Your task to perform on an android device: open app "Skype" (install if not already installed) and go to login screen Image 0: 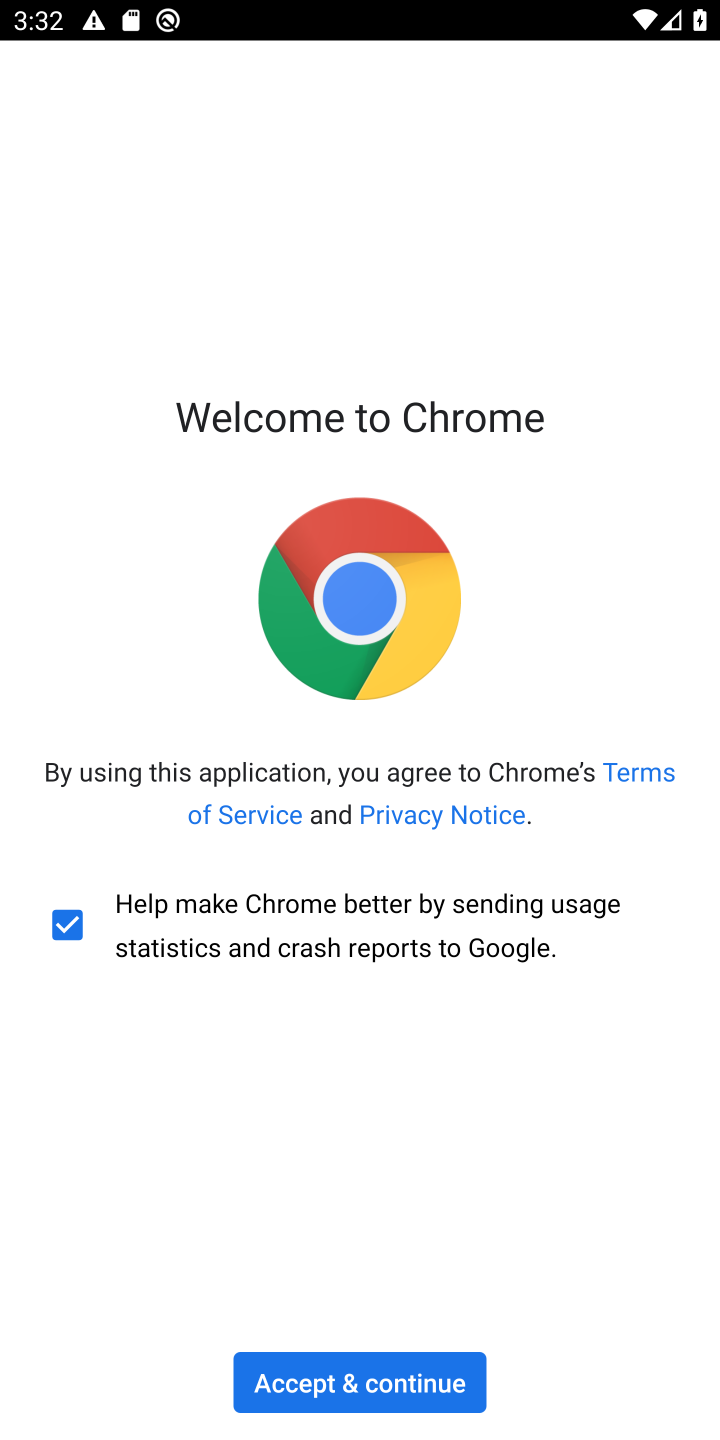
Step 0: press home button
Your task to perform on an android device: open app "Skype" (install if not already installed) and go to login screen Image 1: 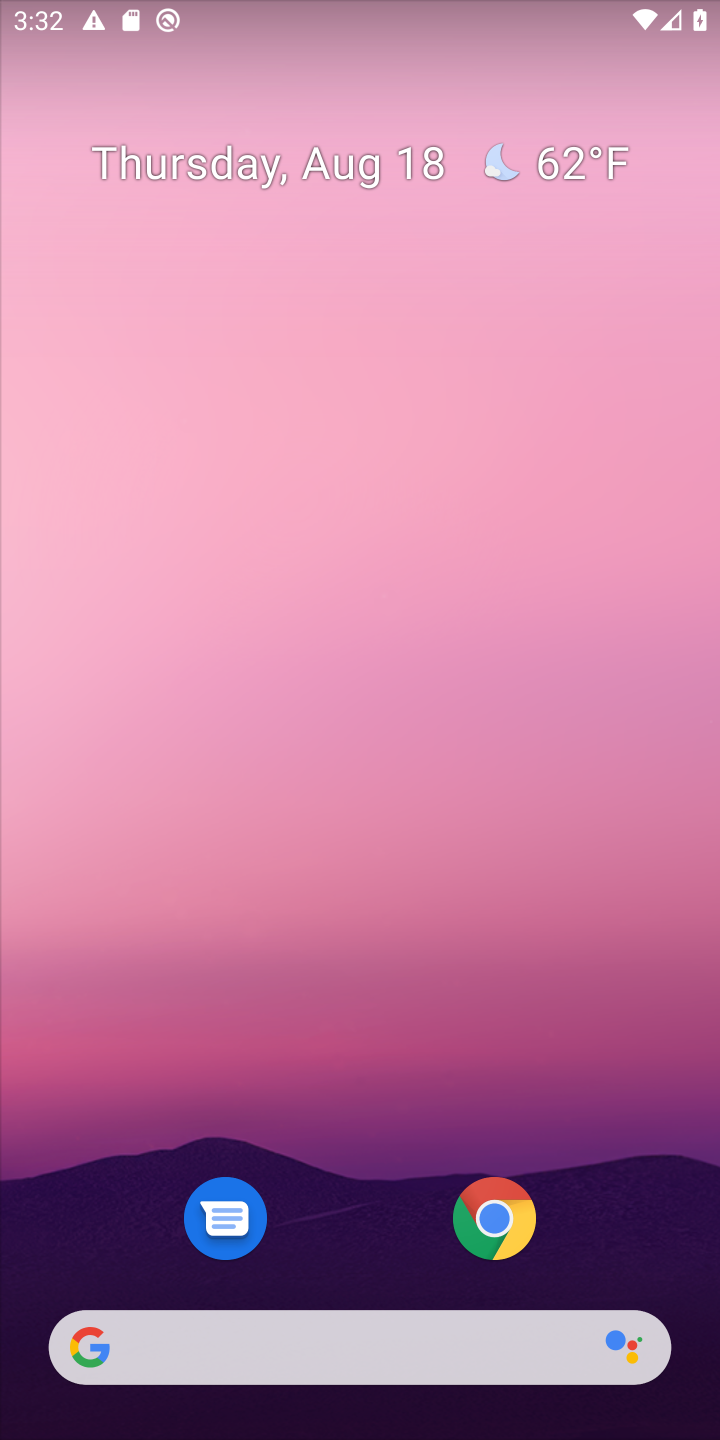
Step 1: drag from (341, 1062) to (341, 456)
Your task to perform on an android device: open app "Skype" (install if not already installed) and go to login screen Image 2: 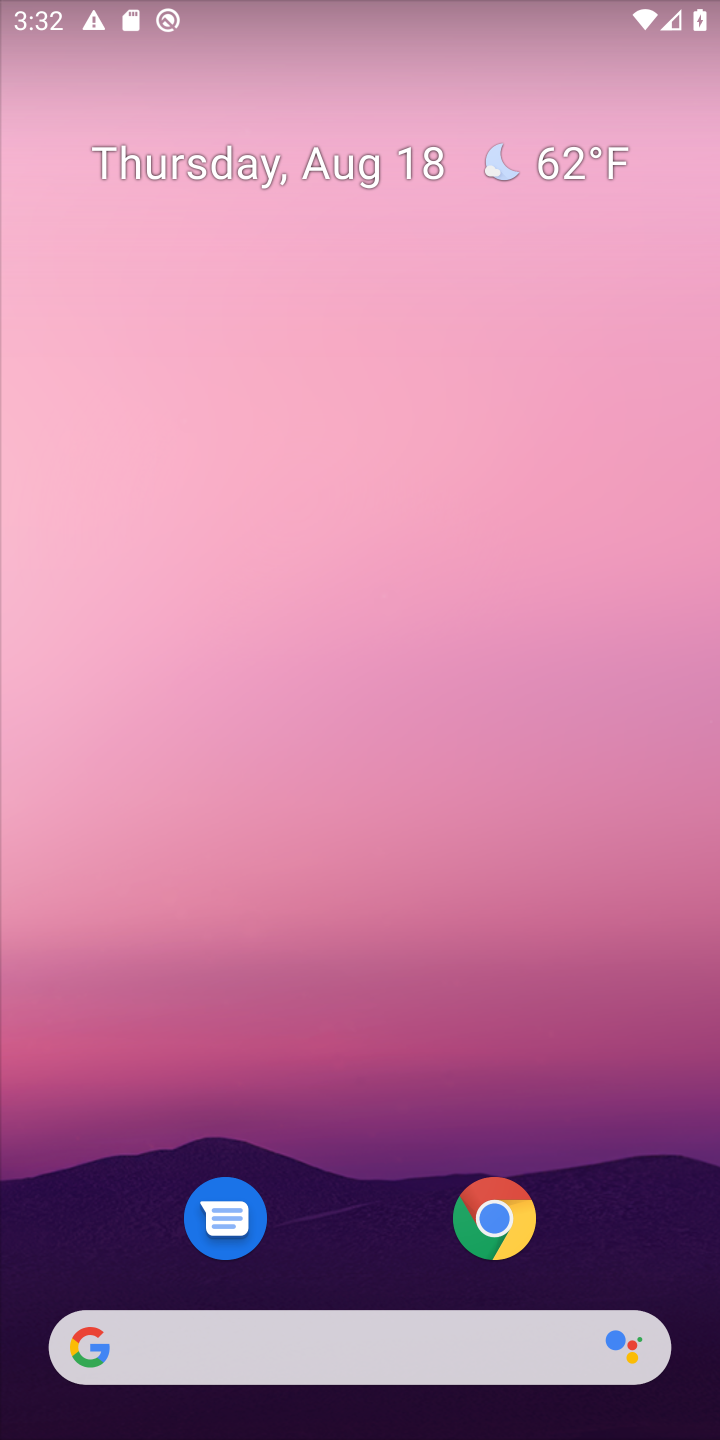
Step 2: drag from (363, 1114) to (368, 311)
Your task to perform on an android device: open app "Skype" (install if not already installed) and go to login screen Image 3: 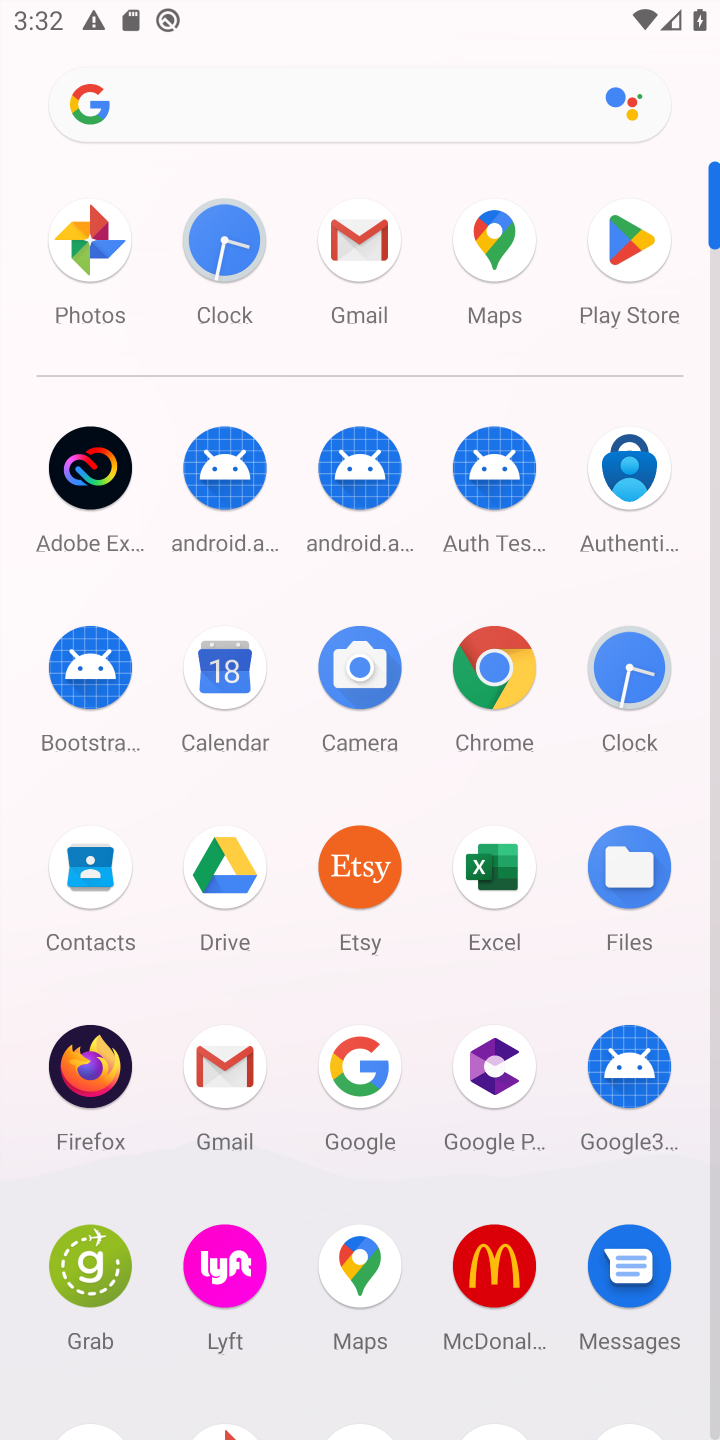
Step 3: click (614, 265)
Your task to perform on an android device: open app "Skype" (install if not already installed) and go to login screen Image 4: 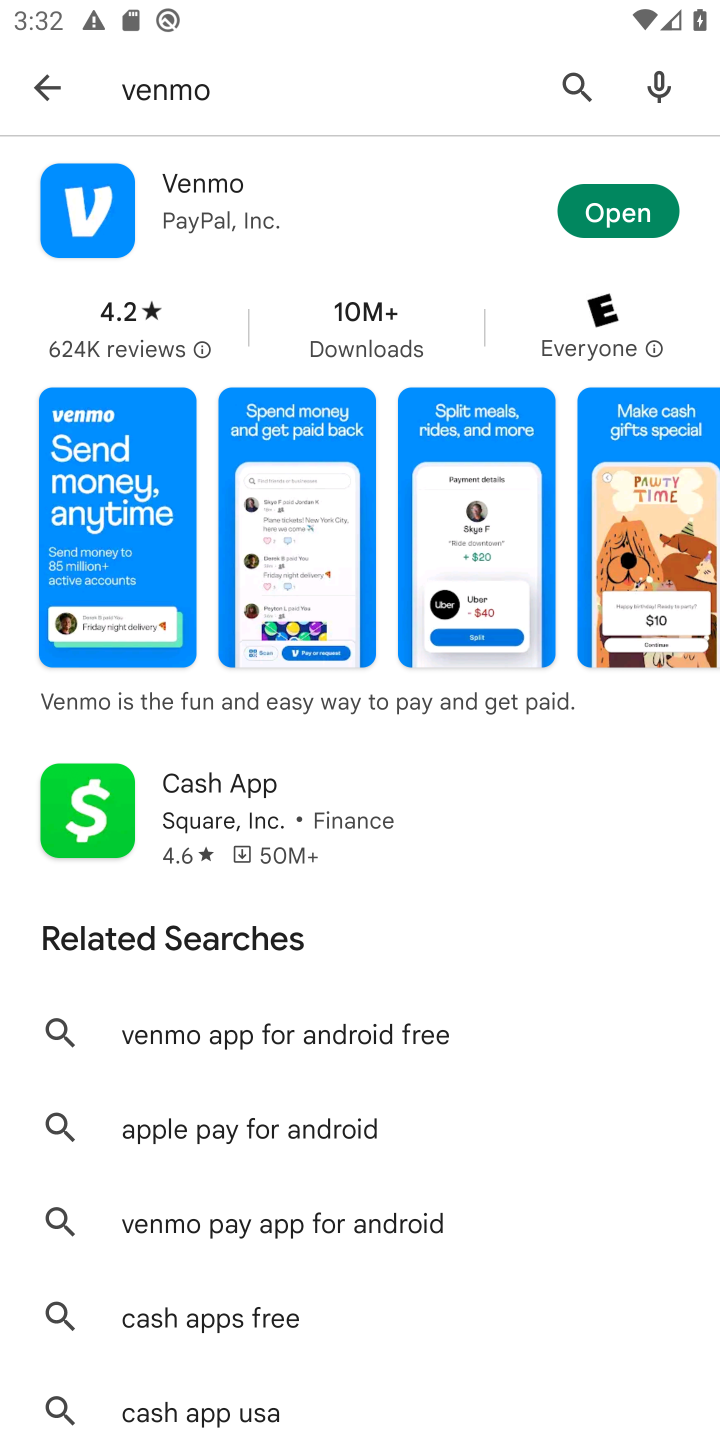
Step 4: click (557, 84)
Your task to perform on an android device: open app "Skype" (install if not already installed) and go to login screen Image 5: 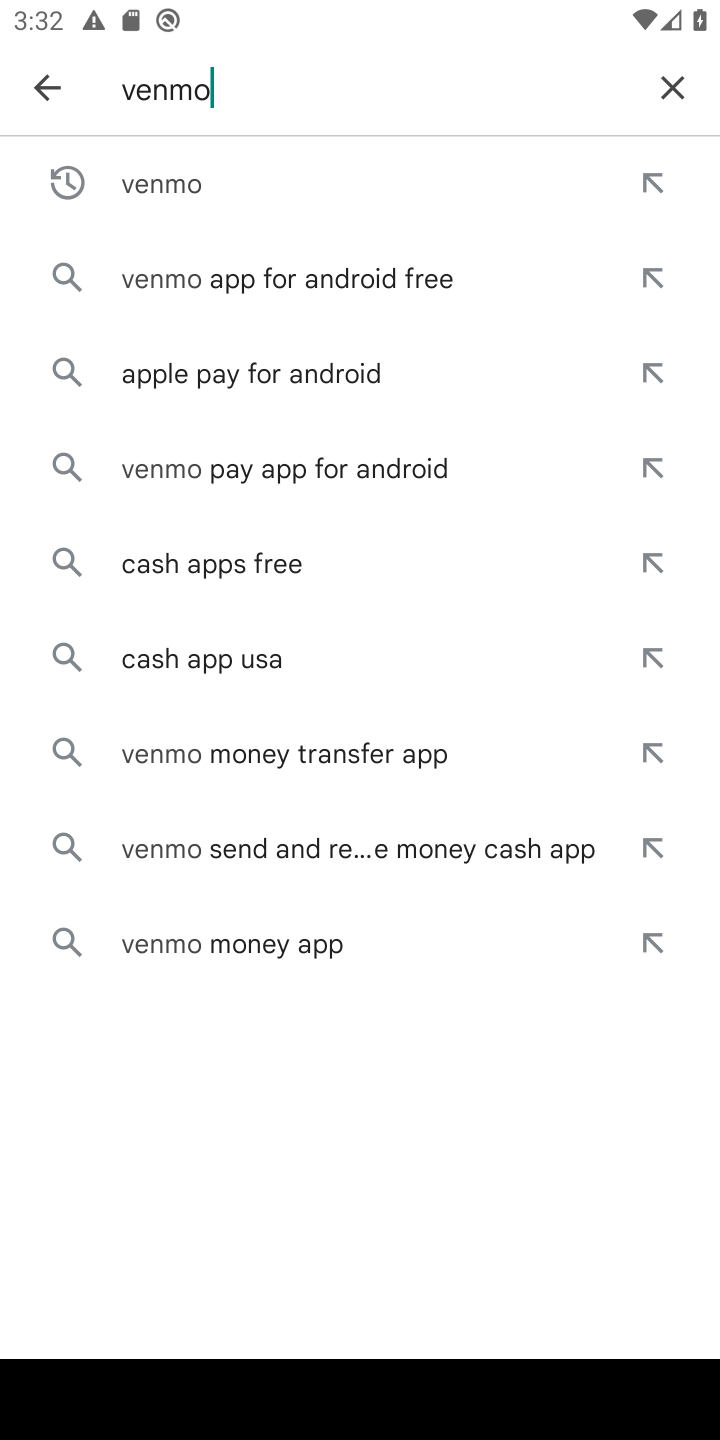
Step 5: click (666, 84)
Your task to perform on an android device: open app "Skype" (install if not already installed) and go to login screen Image 6: 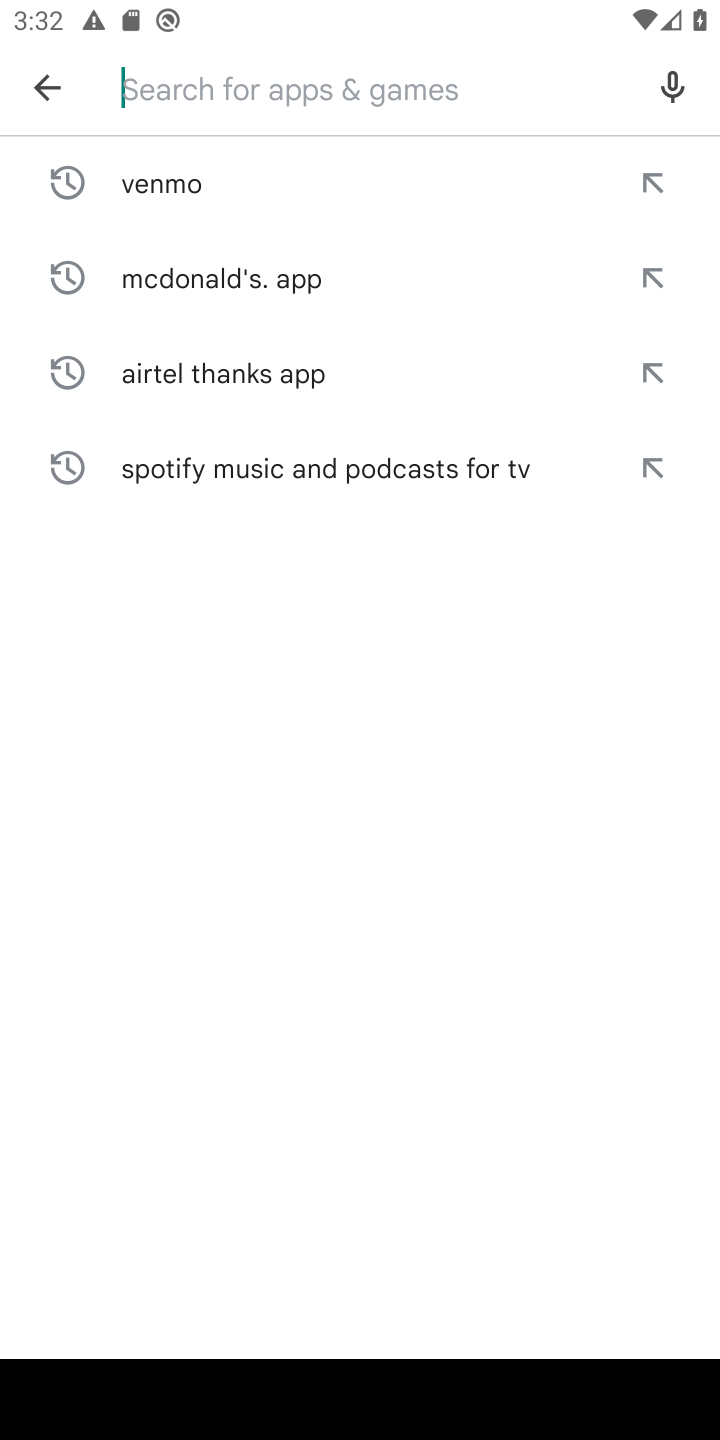
Step 6: type "Skype"
Your task to perform on an android device: open app "Skype" (install if not already installed) and go to login screen Image 7: 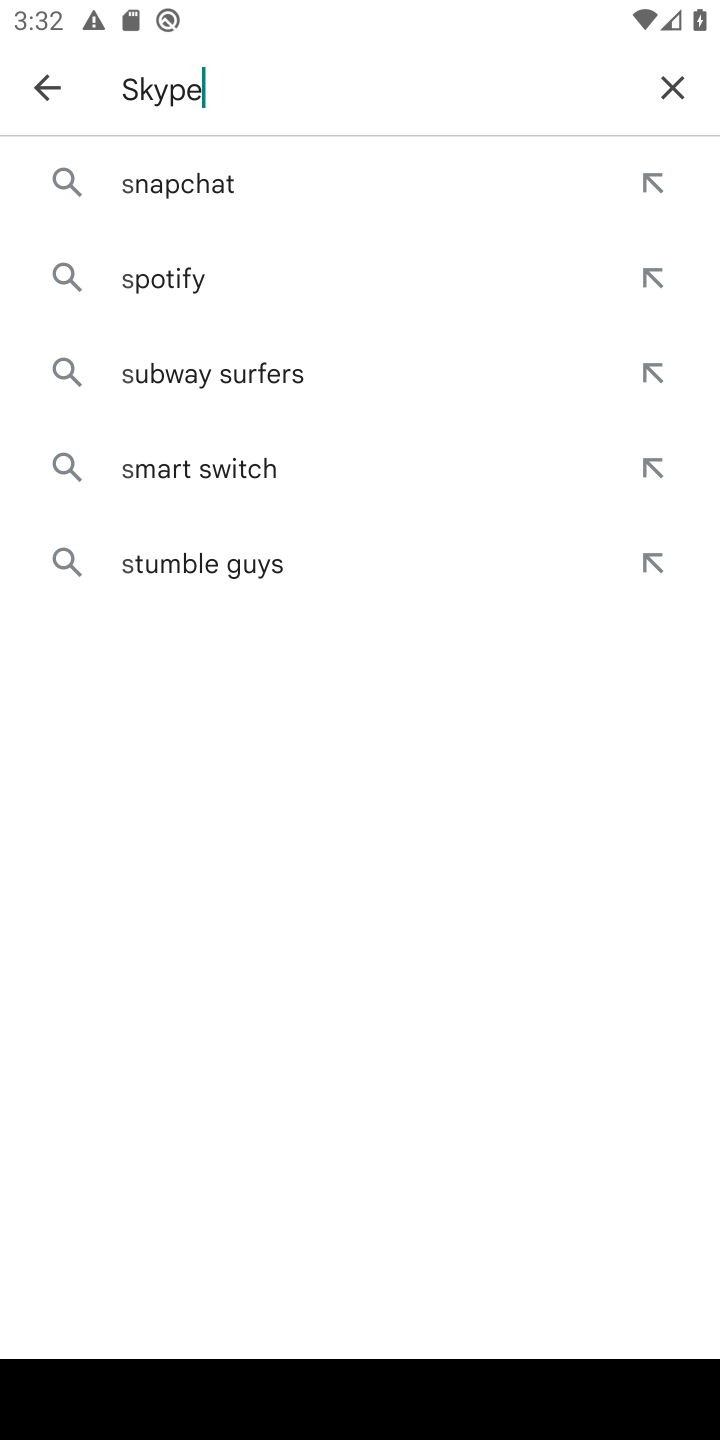
Step 7: type ""
Your task to perform on an android device: open app "Skype" (install if not already installed) and go to login screen Image 8: 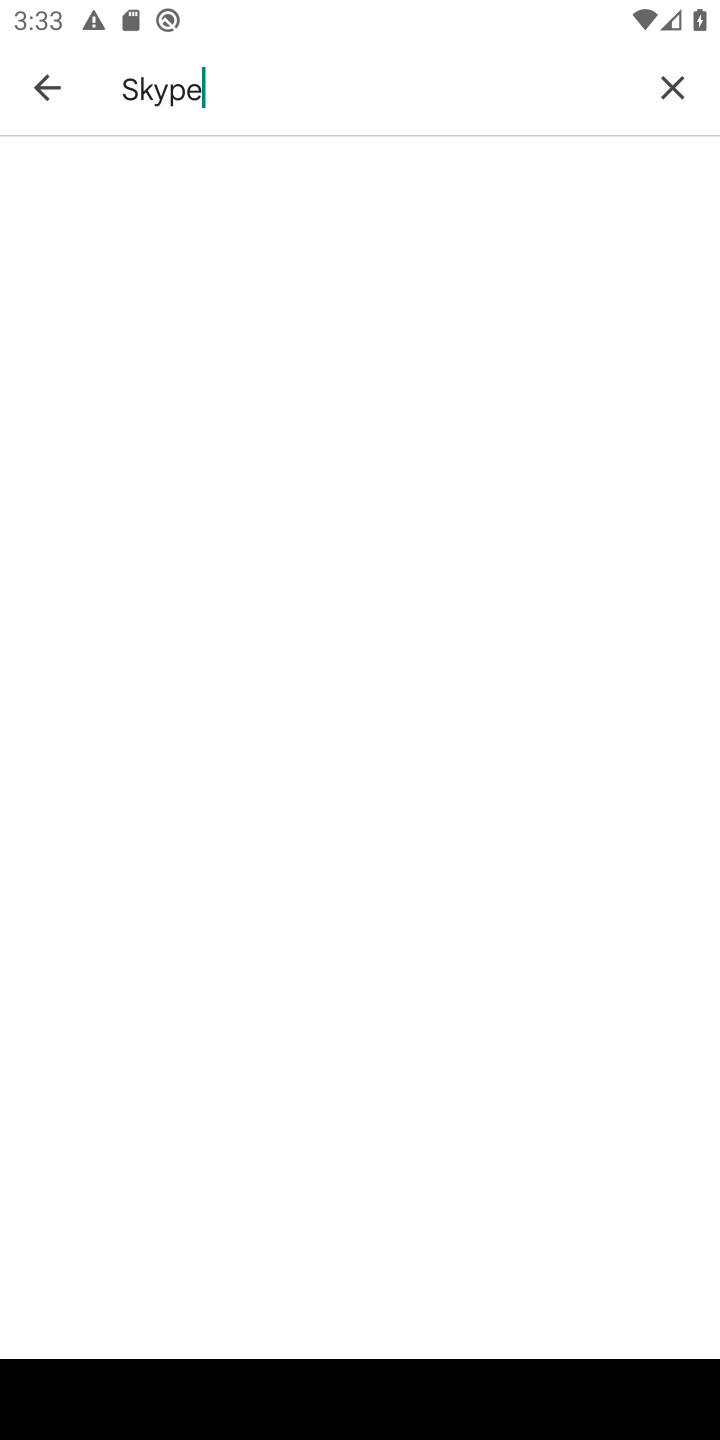
Step 8: task complete